Your task to perform on an android device: Show me productivity apps on the Play Store Image 0: 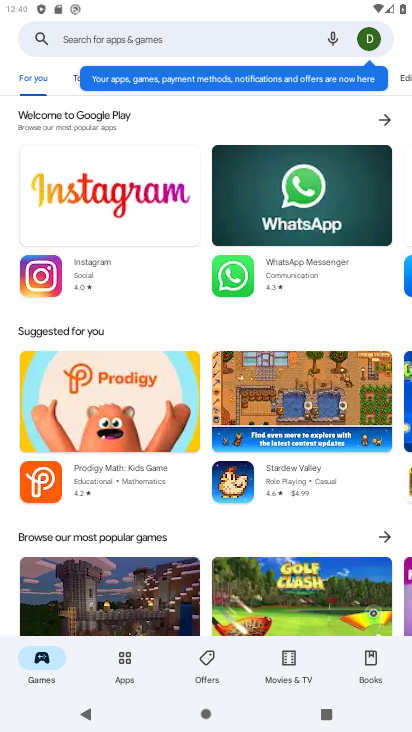
Step 0: press home button
Your task to perform on an android device: Show me productivity apps on the Play Store Image 1: 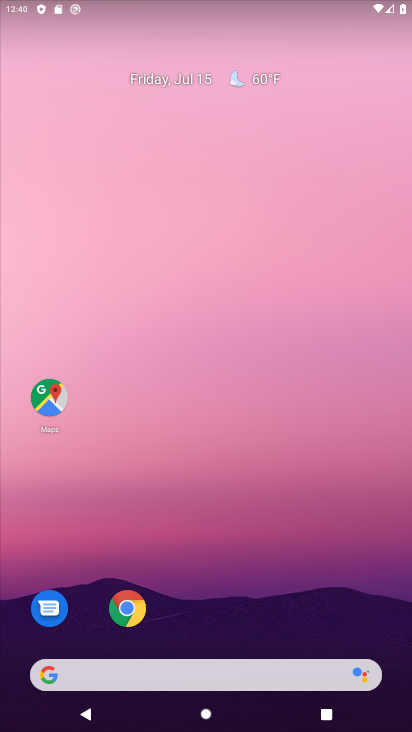
Step 1: drag from (281, 574) to (246, 101)
Your task to perform on an android device: Show me productivity apps on the Play Store Image 2: 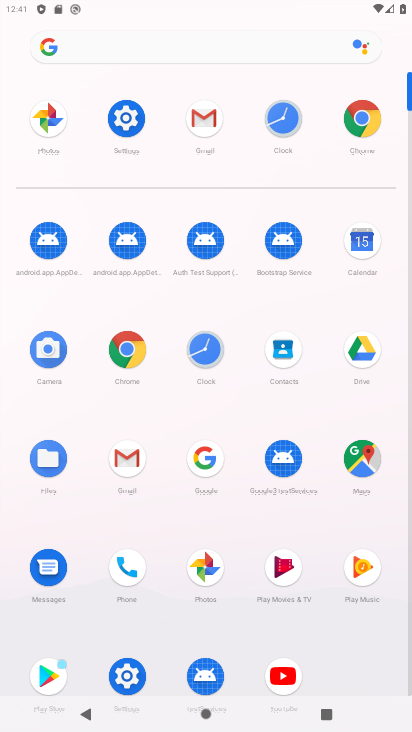
Step 2: click (41, 669)
Your task to perform on an android device: Show me productivity apps on the Play Store Image 3: 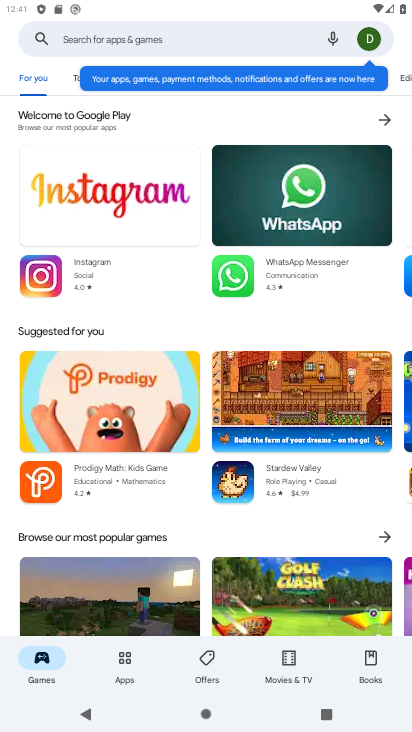
Step 3: click (282, 30)
Your task to perform on an android device: Show me productivity apps on the Play Store Image 4: 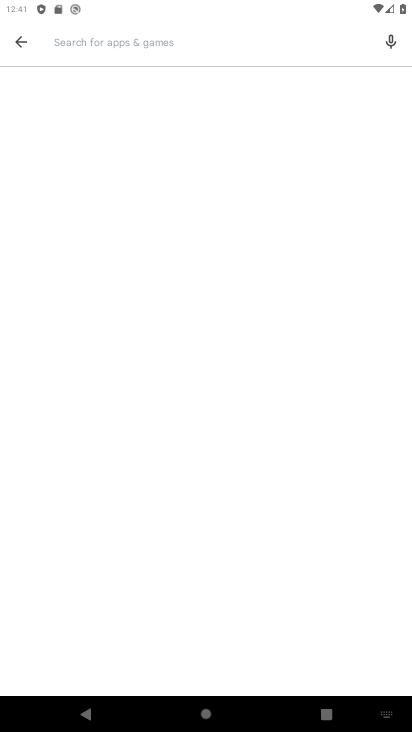
Step 4: type "productivity apps "
Your task to perform on an android device: Show me productivity apps on the Play Store Image 5: 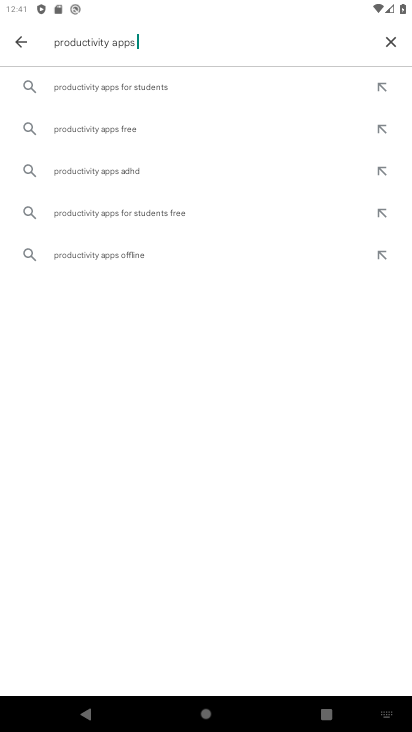
Step 5: click (79, 125)
Your task to perform on an android device: Show me productivity apps on the Play Store Image 6: 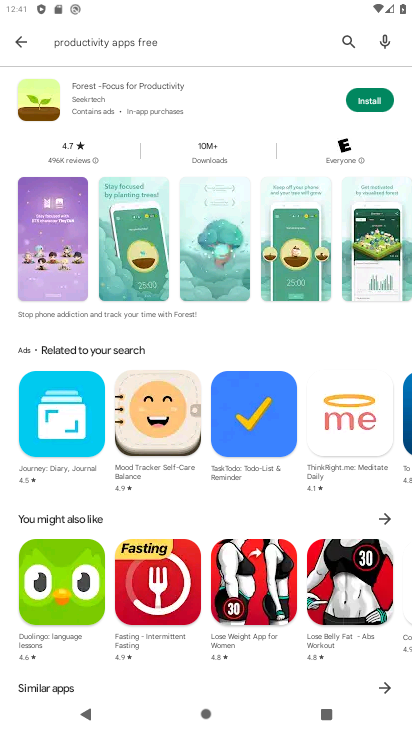
Step 6: task complete